Your task to perform on an android device: Search for custom wallets on etsy. Image 0: 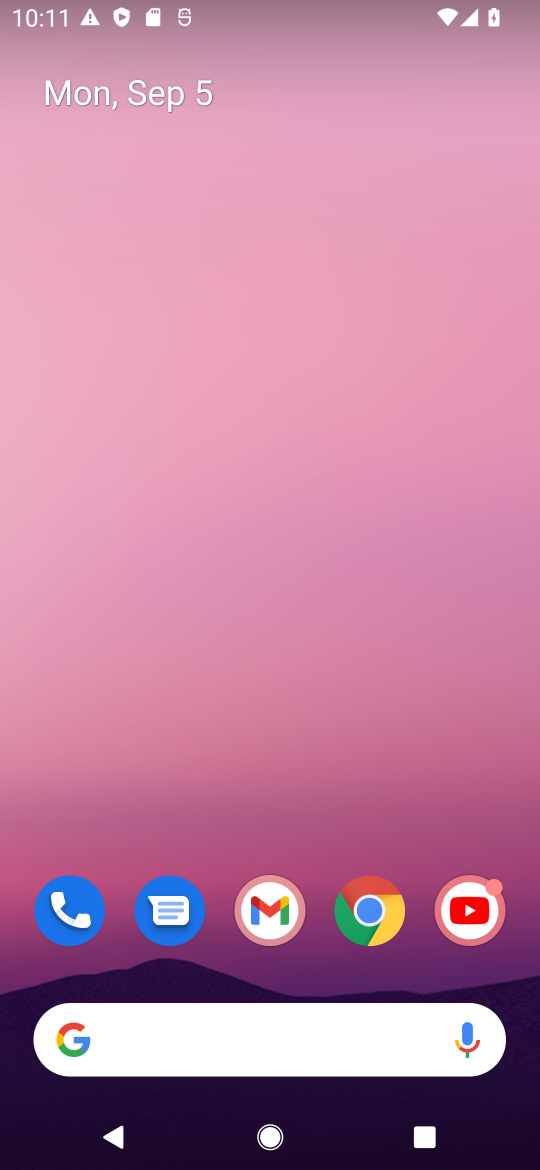
Step 0: click (342, 900)
Your task to perform on an android device: Search for custom wallets on etsy. Image 1: 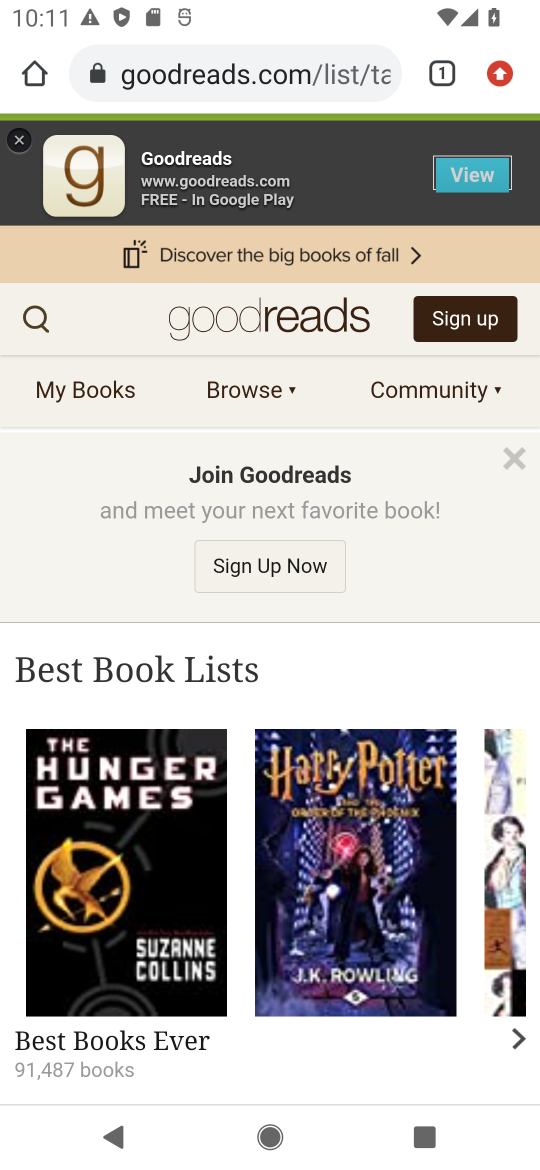
Step 1: click (305, 84)
Your task to perform on an android device: Search for custom wallets on etsy. Image 2: 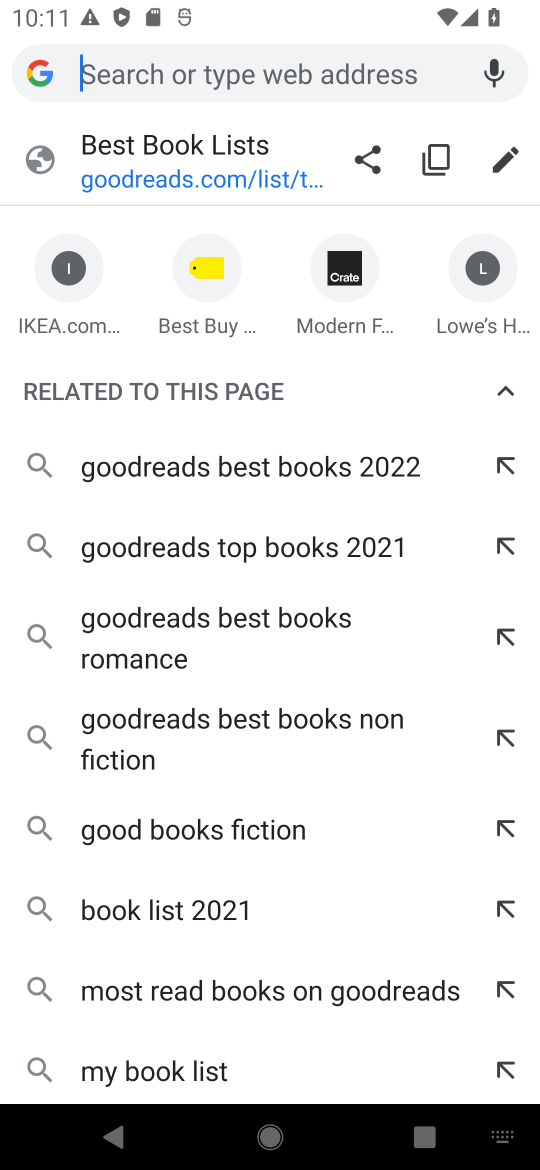
Step 2: click (307, 65)
Your task to perform on an android device: Search for custom wallets on etsy. Image 3: 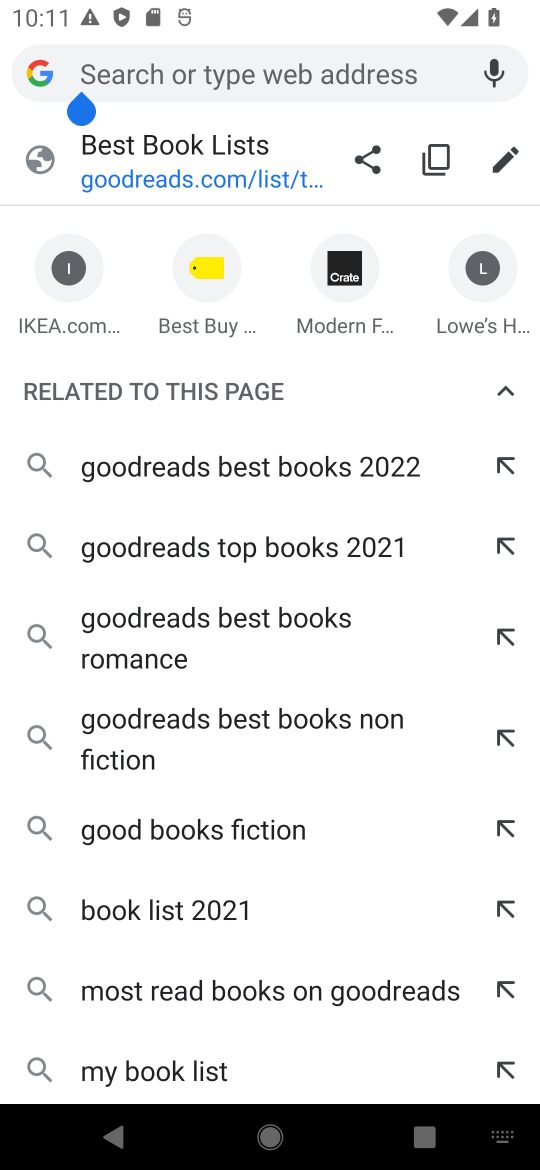
Step 3: type "etsy"
Your task to perform on an android device: Search for custom wallets on etsy. Image 4: 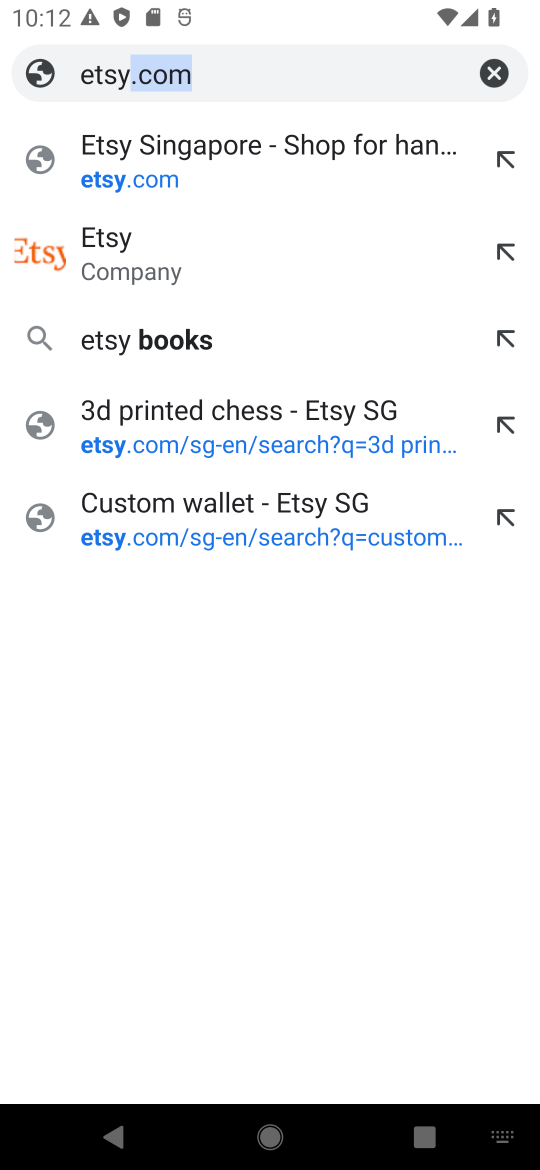
Step 4: click (174, 256)
Your task to perform on an android device: Search for custom wallets on etsy. Image 5: 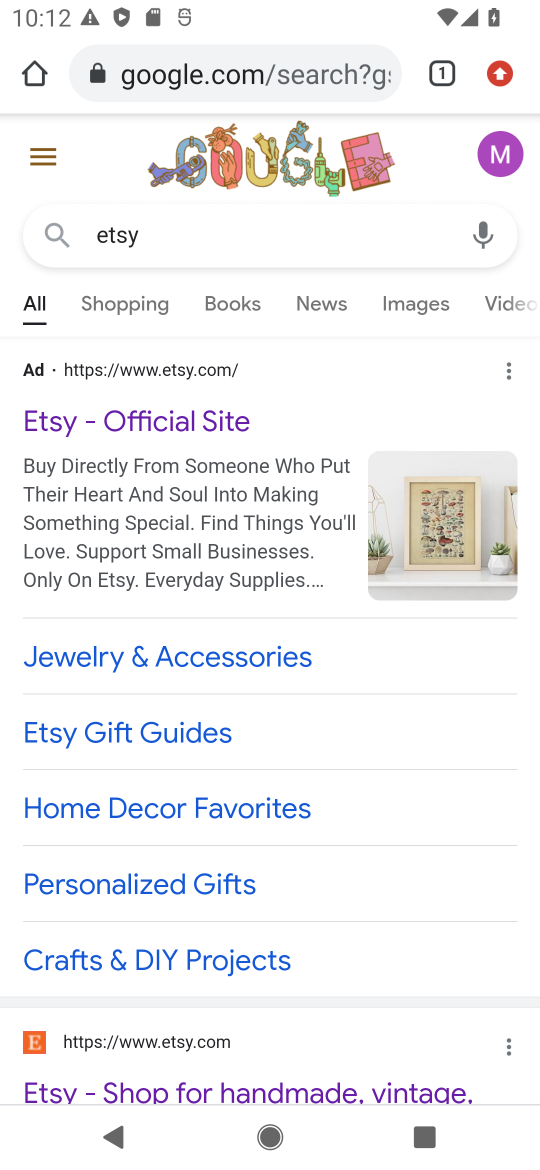
Step 5: click (184, 415)
Your task to perform on an android device: Search for custom wallets on etsy. Image 6: 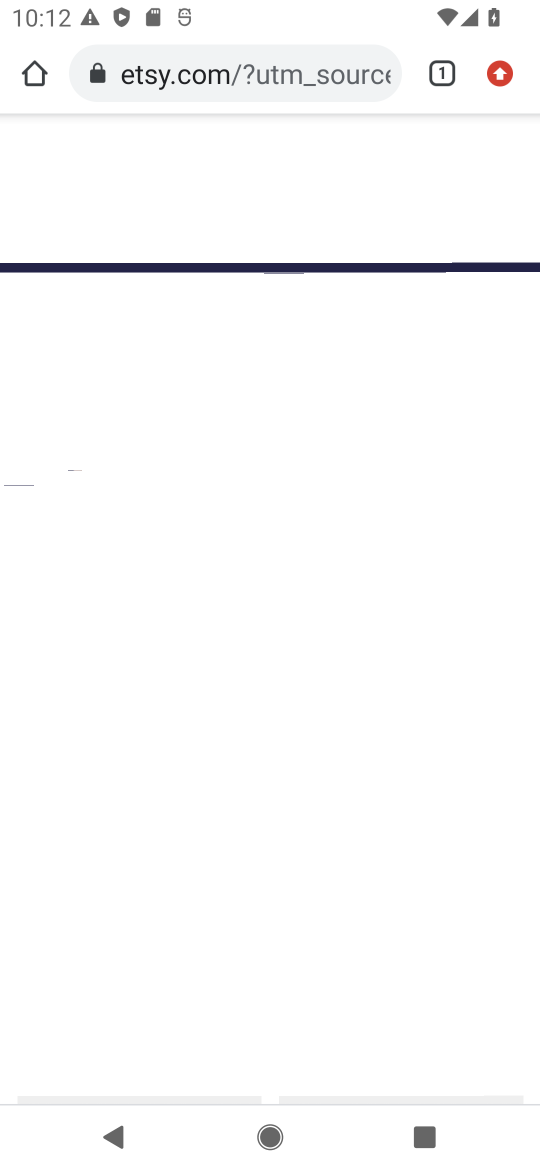
Step 6: click (303, 89)
Your task to perform on an android device: Search for custom wallets on etsy. Image 7: 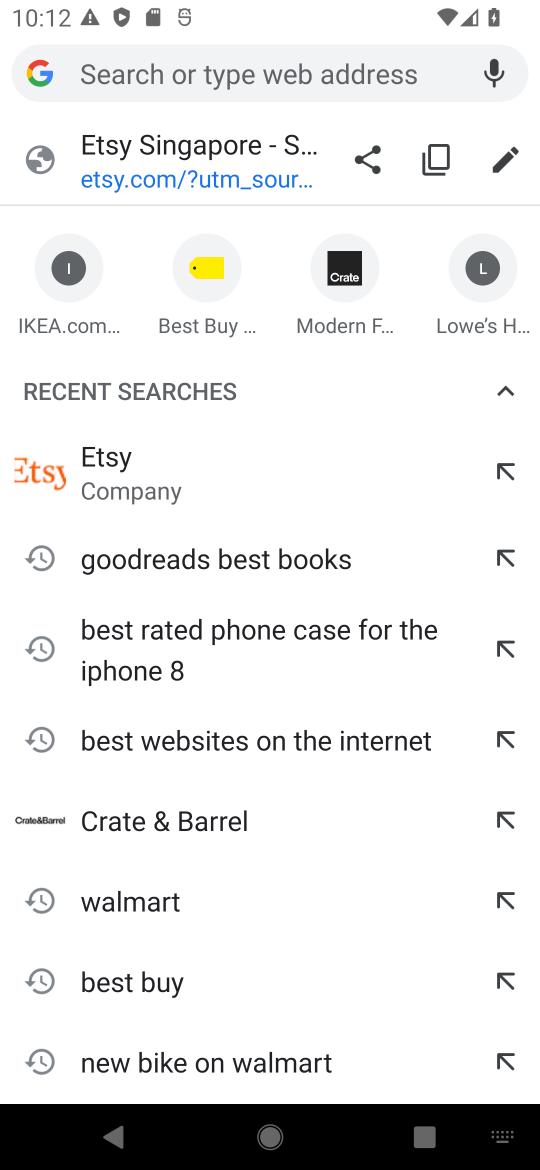
Step 7: press back button
Your task to perform on an android device: Search for custom wallets on etsy. Image 8: 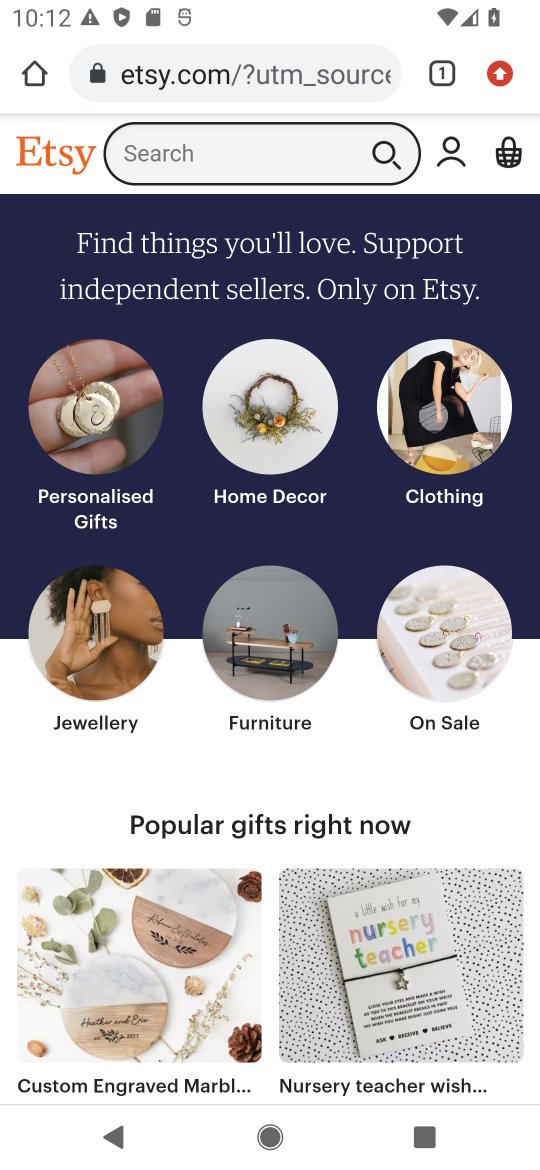
Step 8: click (166, 158)
Your task to perform on an android device: Search for custom wallets on etsy. Image 9: 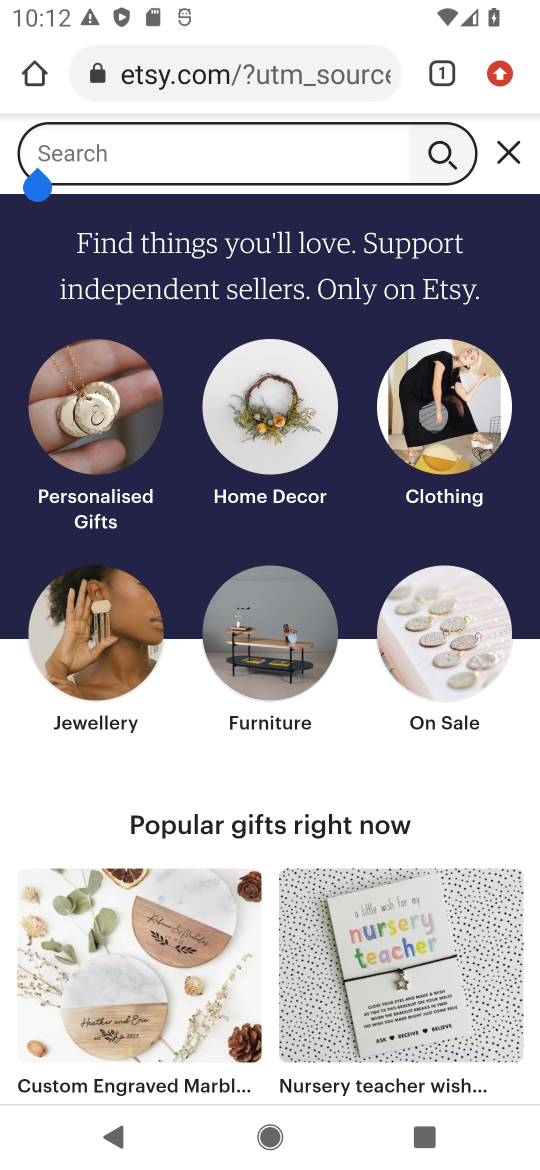
Step 9: type "custom wallets"
Your task to perform on an android device: Search for custom wallets on etsy. Image 10: 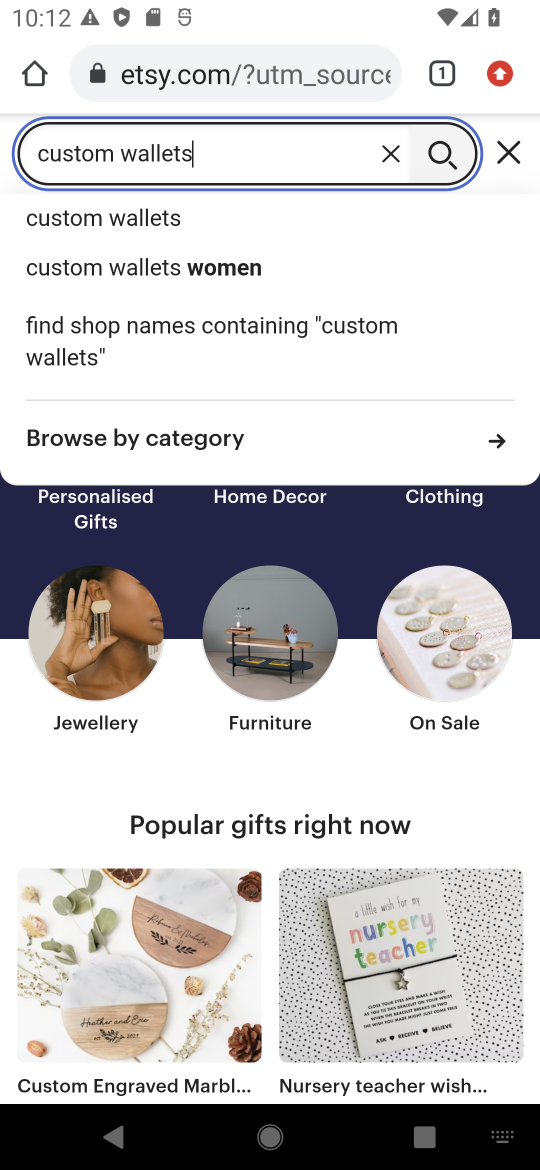
Step 10: press enter
Your task to perform on an android device: Search for custom wallets on etsy. Image 11: 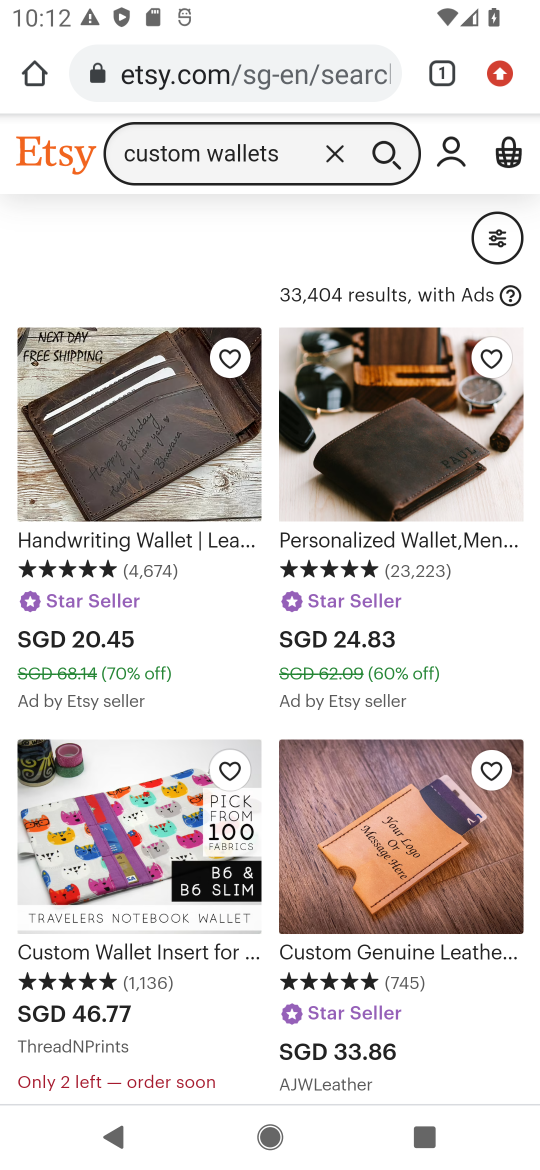
Step 11: task complete